Your task to perform on an android device: open a bookmark in the chrome app Image 0: 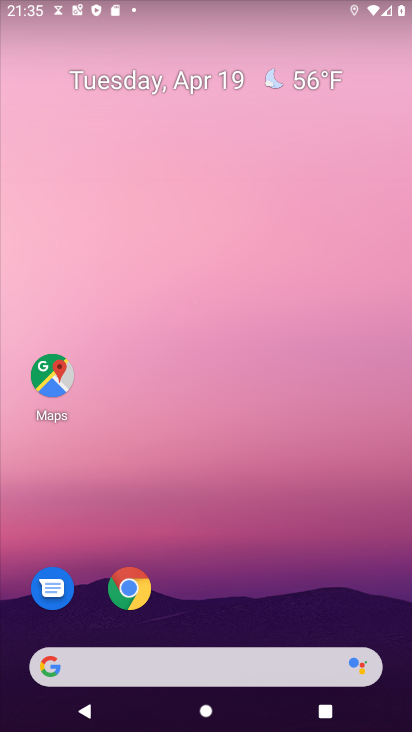
Step 0: click (127, 592)
Your task to perform on an android device: open a bookmark in the chrome app Image 1: 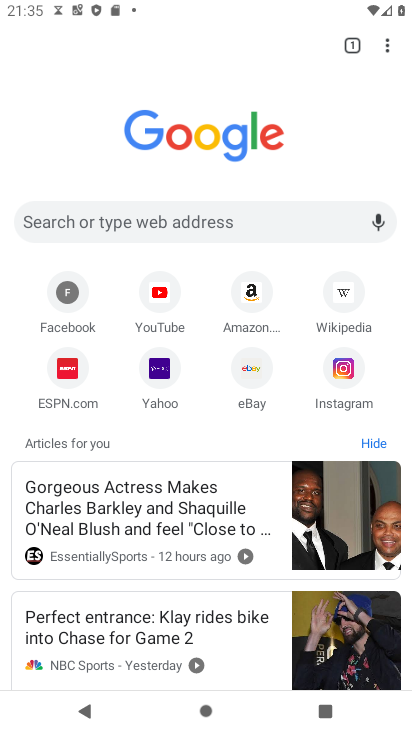
Step 1: click (389, 44)
Your task to perform on an android device: open a bookmark in the chrome app Image 2: 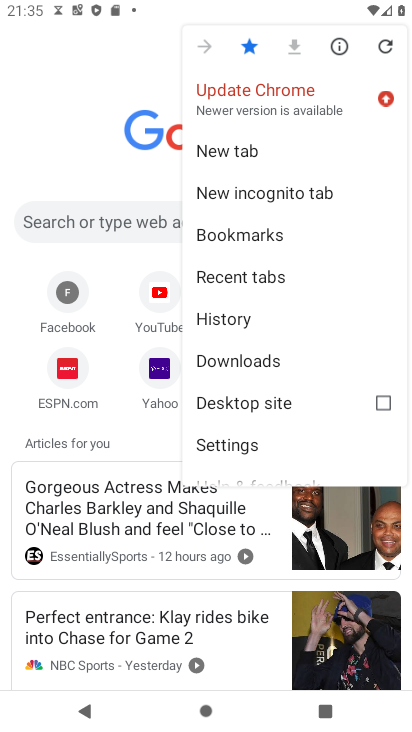
Step 2: click (246, 239)
Your task to perform on an android device: open a bookmark in the chrome app Image 3: 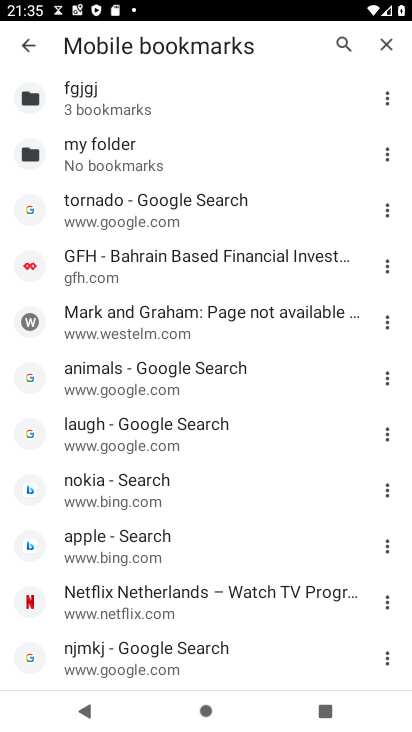
Step 3: task complete